Your task to perform on an android device: Is it going to rain today? Image 0: 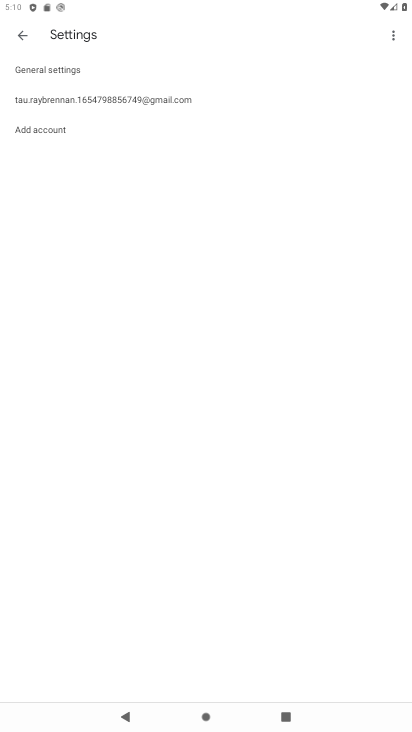
Step 0: press home button
Your task to perform on an android device: Is it going to rain today? Image 1: 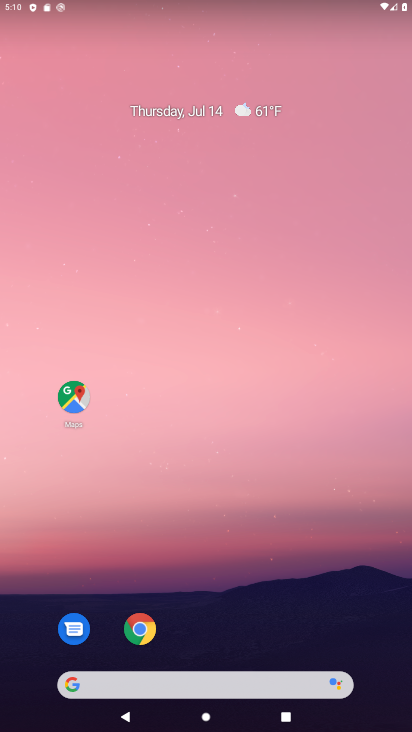
Step 1: drag from (287, 576) to (250, 6)
Your task to perform on an android device: Is it going to rain today? Image 2: 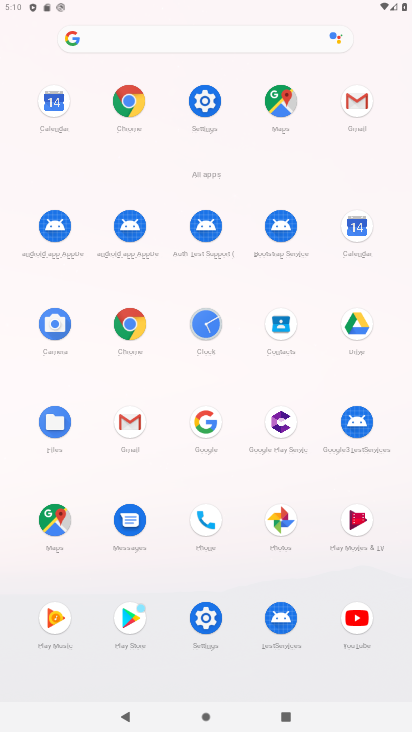
Step 2: click (126, 333)
Your task to perform on an android device: Is it going to rain today? Image 3: 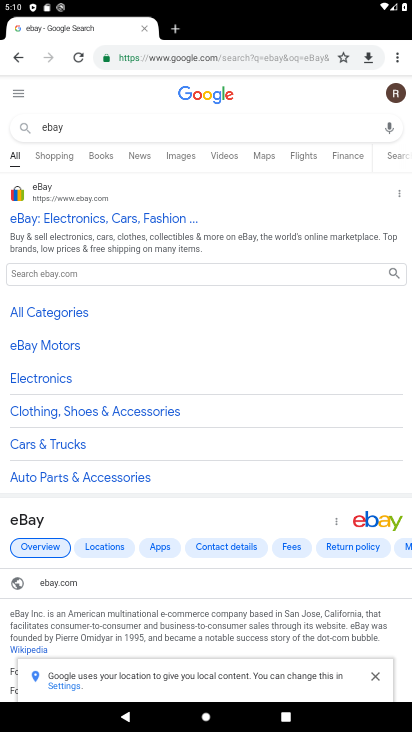
Step 3: click (191, 51)
Your task to perform on an android device: Is it going to rain today? Image 4: 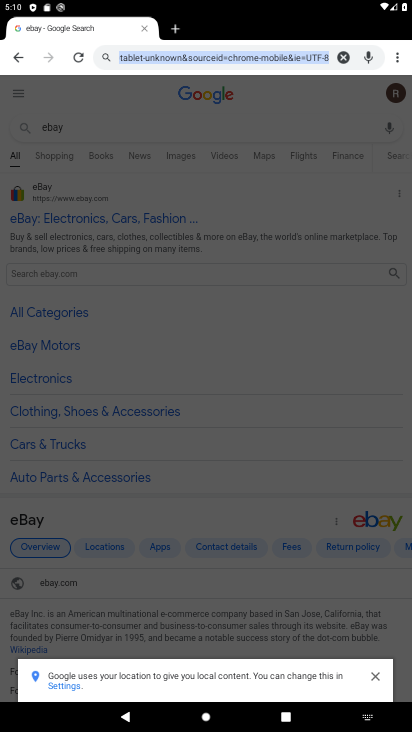
Step 4: click (338, 52)
Your task to perform on an android device: Is it going to rain today? Image 5: 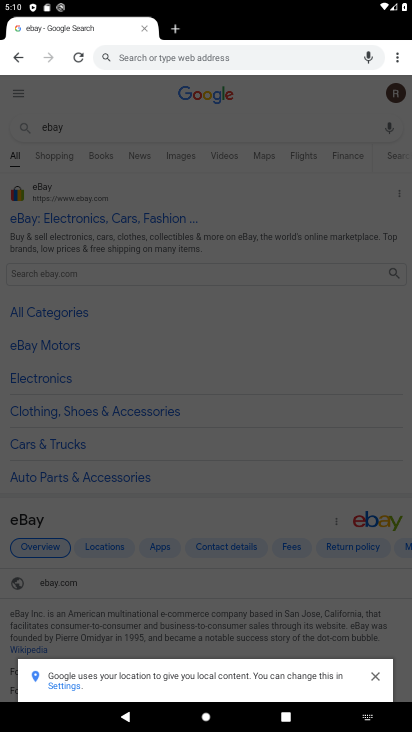
Step 5: drag from (237, 652) to (371, 722)
Your task to perform on an android device: Is it going to rain today? Image 6: 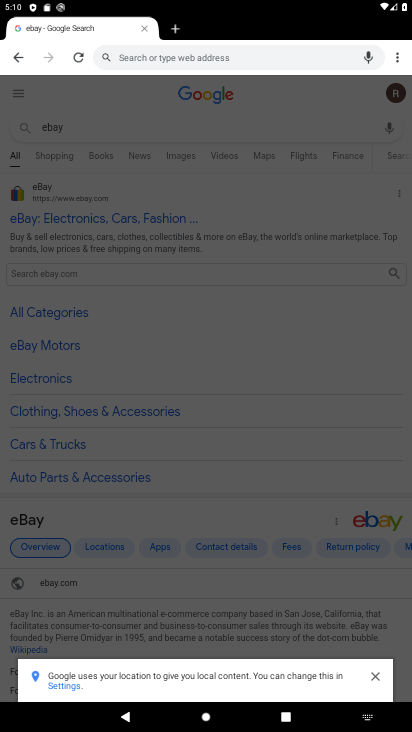
Step 6: type "Is it going to rain today?"
Your task to perform on an android device: Is it going to rain today? Image 7: 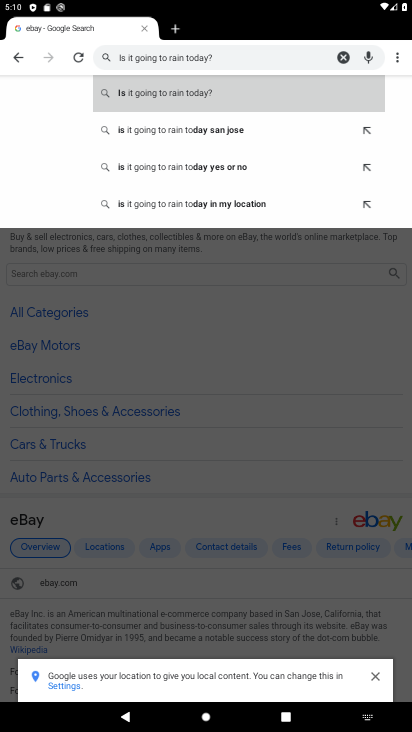
Step 7: click (150, 93)
Your task to perform on an android device: Is it going to rain today? Image 8: 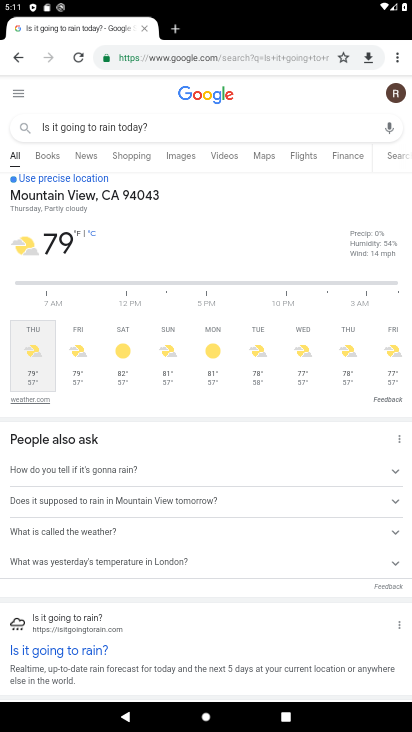
Step 8: task complete